Your task to perform on an android device: Open Google Chrome and click the shortcut for Amazon.com Image 0: 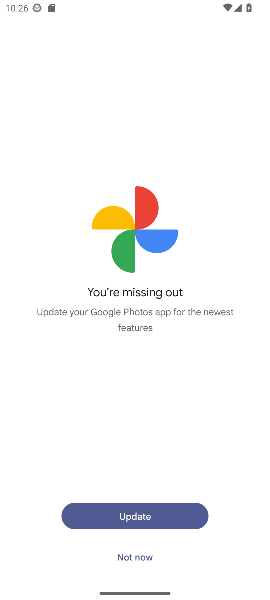
Step 0: press home button
Your task to perform on an android device: Open Google Chrome and click the shortcut for Amazon.com Image 1: 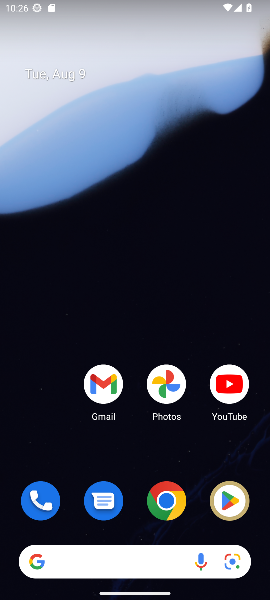
Step 1: click (168, 497)
Your task to perform on an android device: Open Google Chrome and click the shortcut for Amazon.com Image 2: 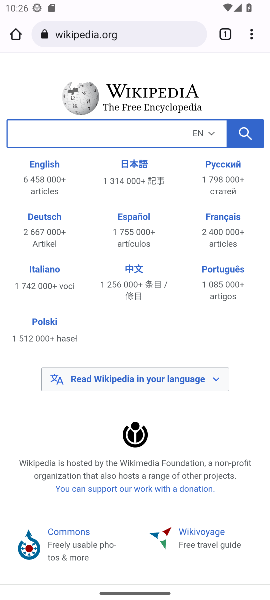
Step 2: press back button
Your task to perform on an android device: Open Google Chrome and click the shortcut for Amazon.com Image 3: 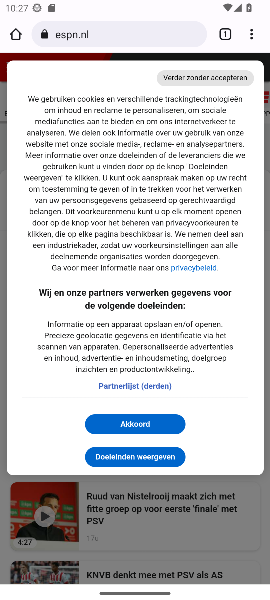
Step 3: press back button
Your task to perform on an android device: Open Google Chrome and click the shortcut for Amazon.com Image 4: 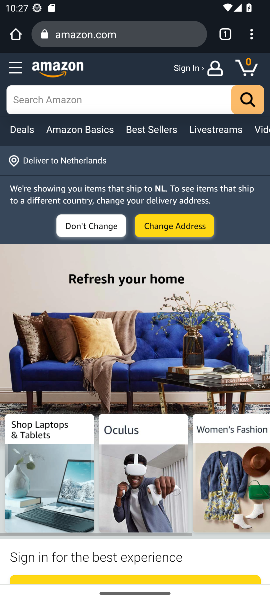
Step 4: press back button
Your task to perform on an android device: Open Google Chrome and click the shortcut for Amazon.com Image 5: 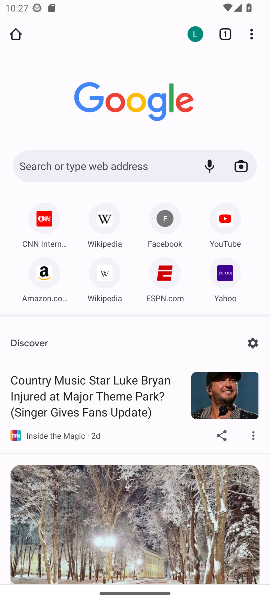
Step 5: click (39, 280)
Your task to perform on an android device: Open Google Chrome and click the shortcut for Amazon.com Image 6: 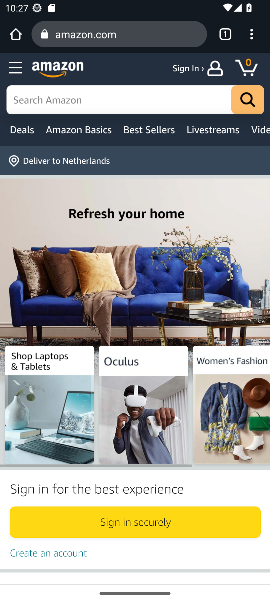
Step 6: task complete